Your task to perform on an android device: Check the news Image 0: 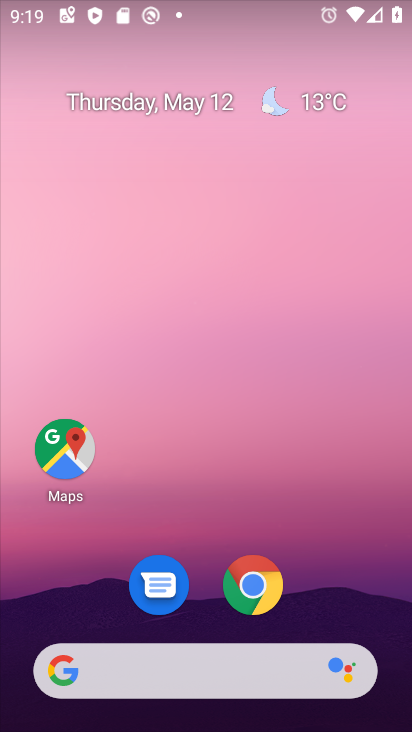
Step 0: drag from (224, 509) to (210, 70)
Your task to perform on an android device: Check the news Image 1: 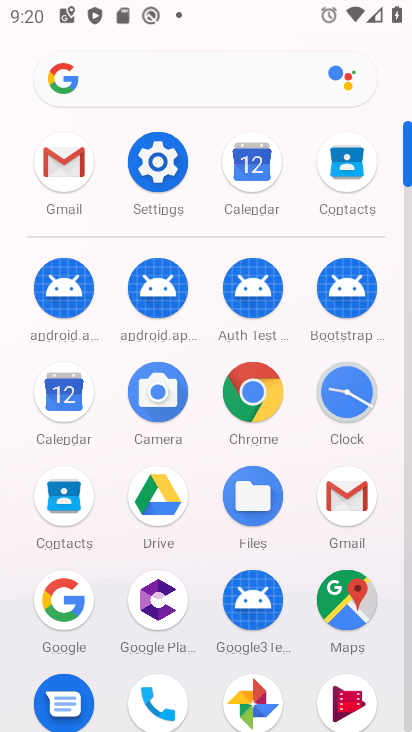
Step 1: click (74, 603)
Your task to perform on an android device: Check the news Image 2: 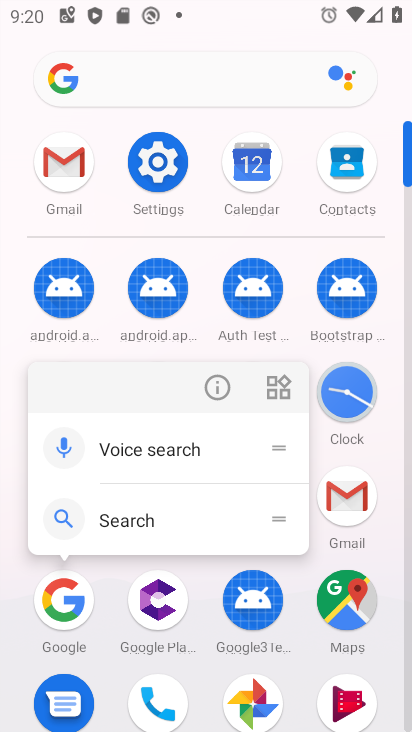
Step 2: click (63, 605)
Your task to perform on an android device: Check the news Image 3: 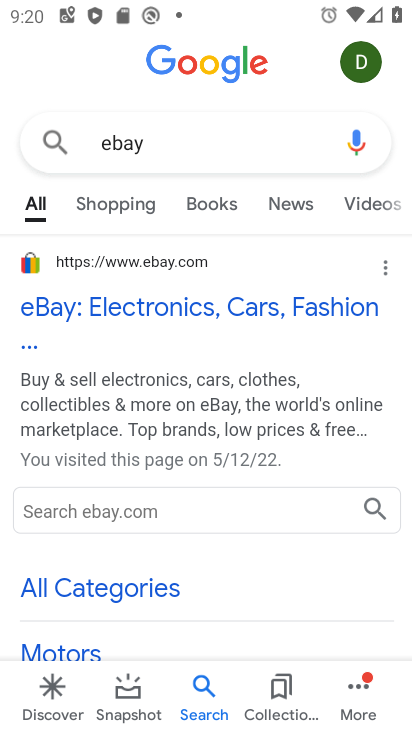
Step 3: click (192, 137)
Your task to perform on an android device: Check the news Image 4: 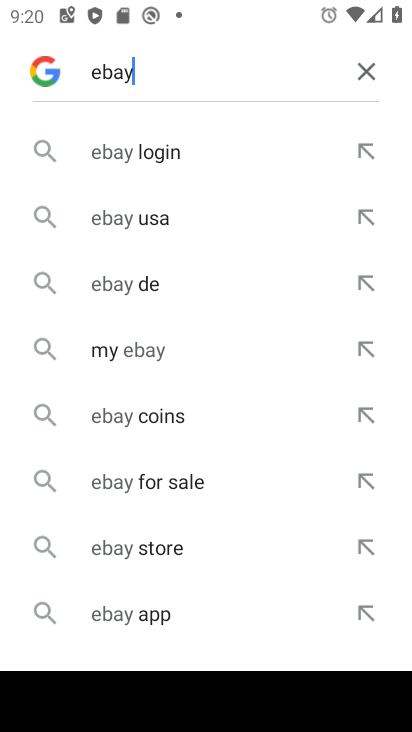
Step 4: click (368, 71)
Your task to perform on an android device: Check the news Image 5: 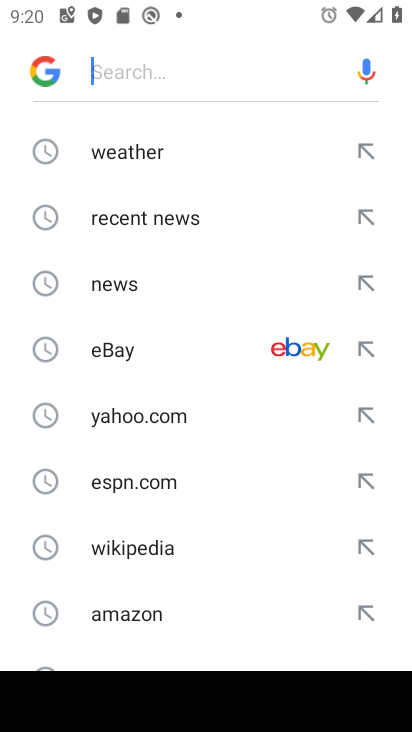
Step 5: click (120, 282)
Your task to perform on an android device: Check the news Image 6: 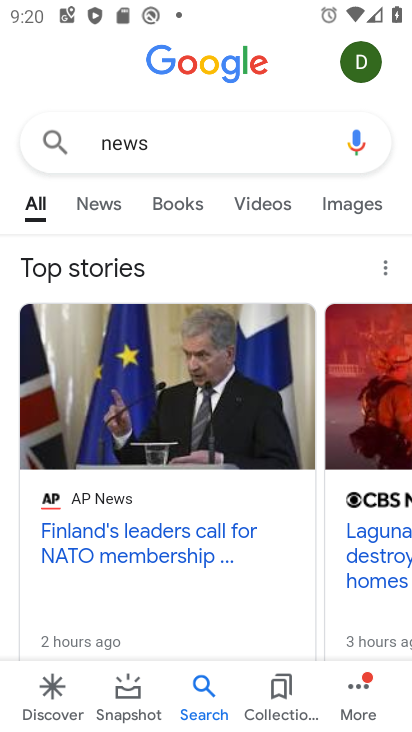
Step 6: click (94, 201)
Your task to perform on an android device: Check the news Image 7: 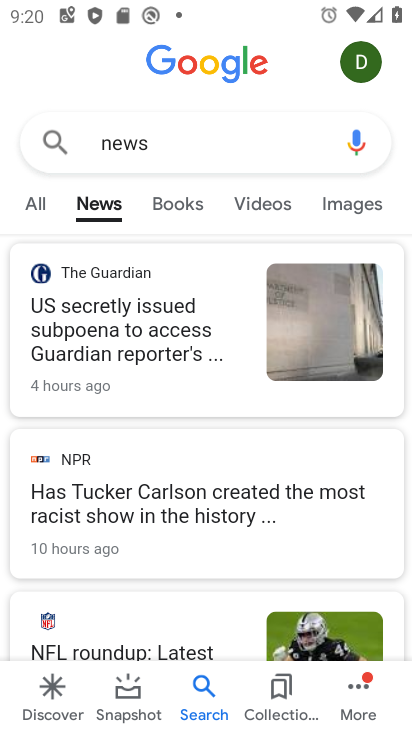
Step 7: task complete